Your task to perform on an android device: Open the phone app and click the voicemail tab. Image 0: 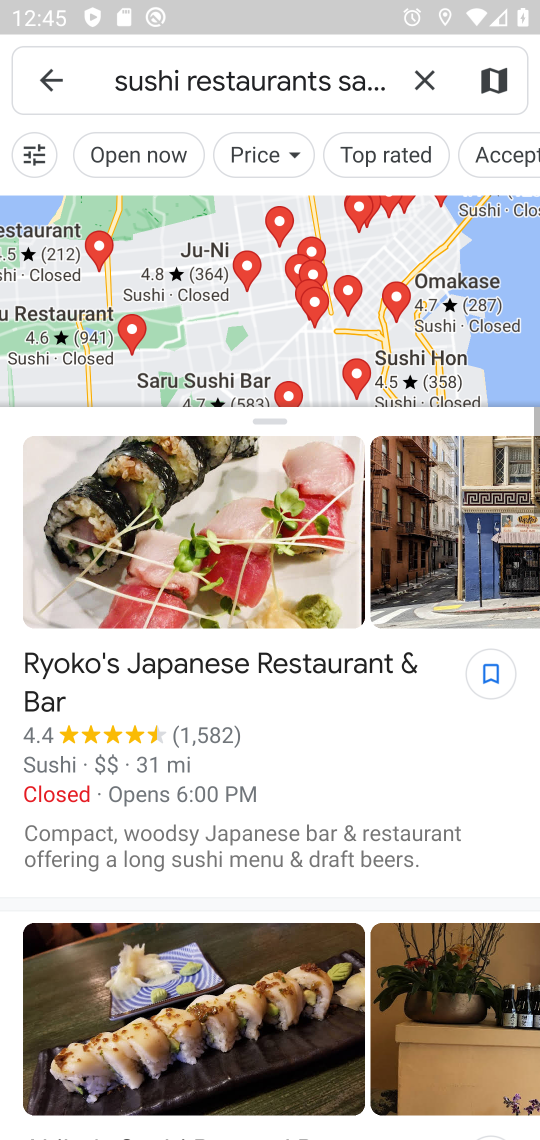
Step 0: drag from (252, 997) to (298, 164)
Your task to perform on an android device: Open the phone app and click the voicemail tab. Image 1: 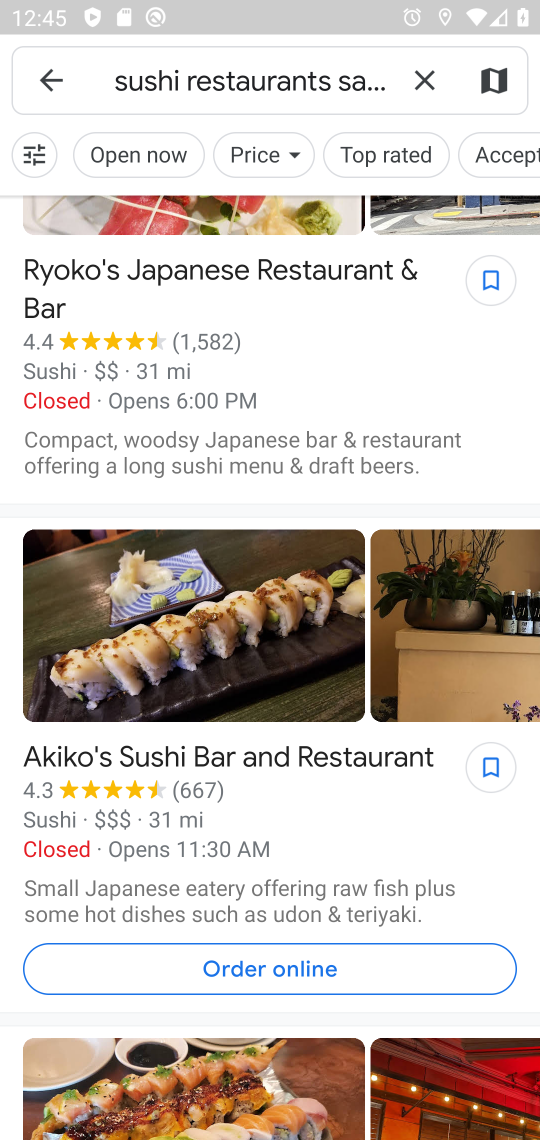
Step 1: drag from (313, 634) to (343, 372)
Your task to perform on an android device: Open the phone app and click the voicemail tab. Image 2: 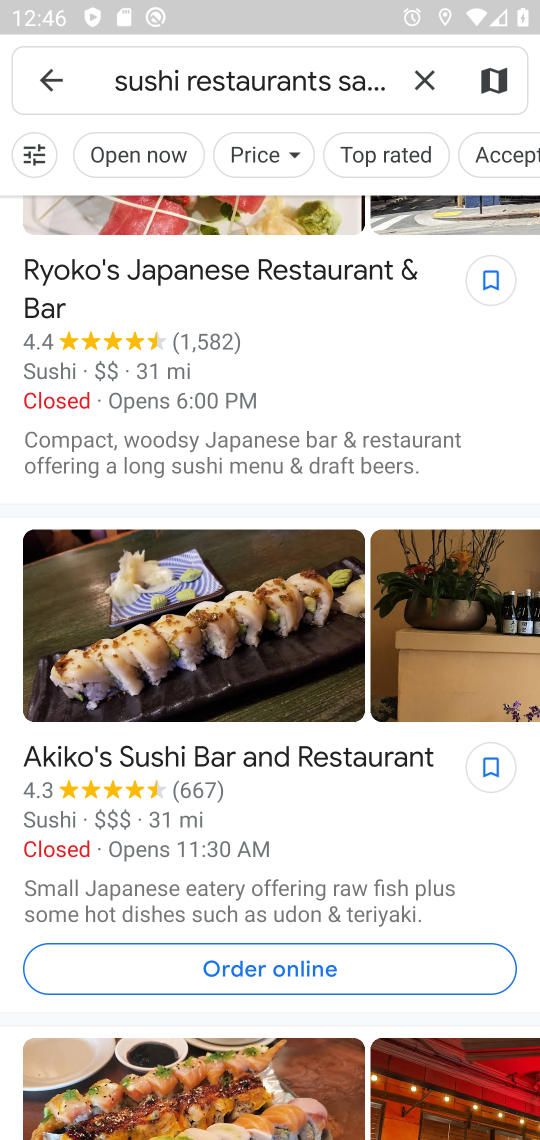
Step 2: drag from (290, 469) to (310, 328)
Your task to perform on an android device: Open the phone app and click the voicemail tab. Image 3: 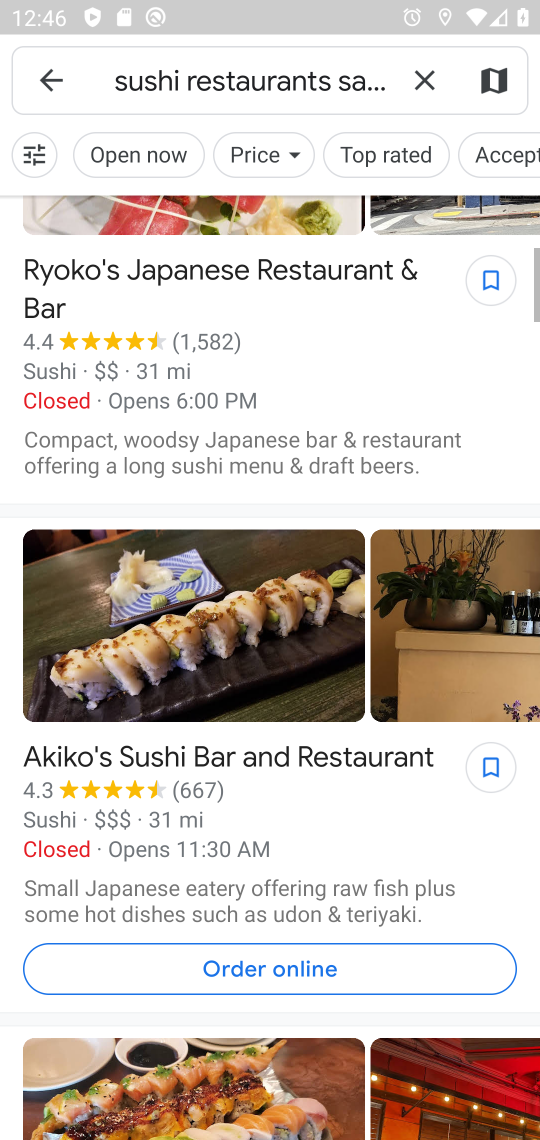
Step 3: press home button
Your task to perform on an android device: Open the phone app and click the voicemail tab. Image 4: 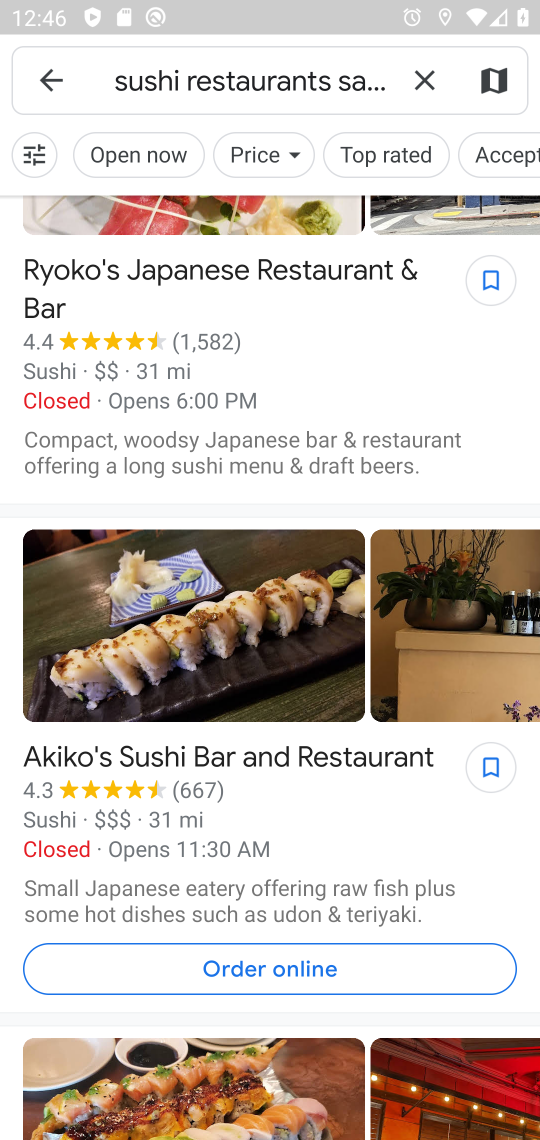
Step 4: click (406, 202)
Your task to perform on an android device: Open the phone app and click the voicemail tab. Image 5: 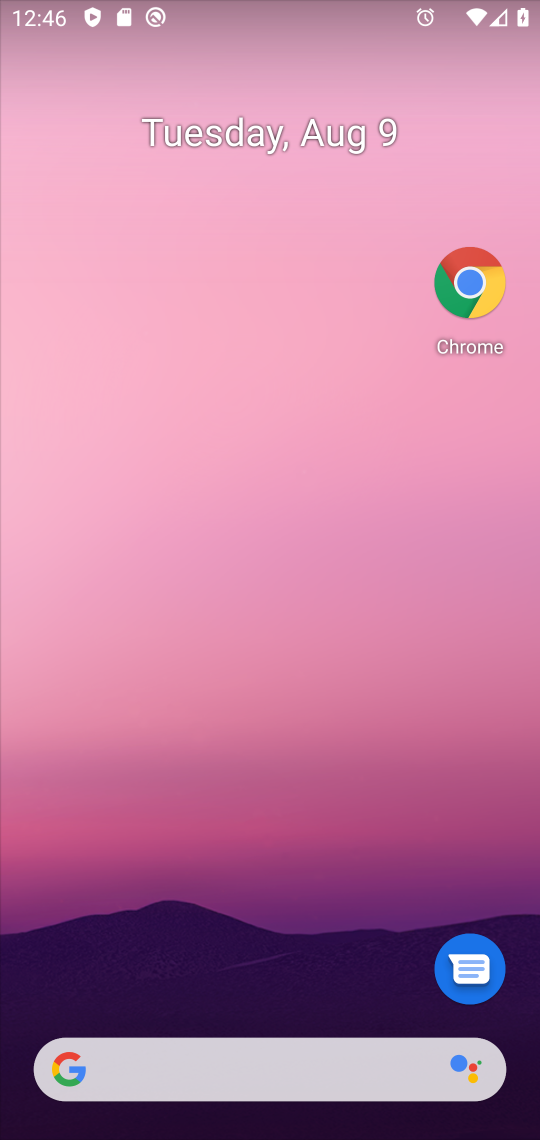
Step 5: drag from (286, 1015) to (374, 315)
Your task to perform on an android device: Open the phone app and click the voicemail tab. Image 6: 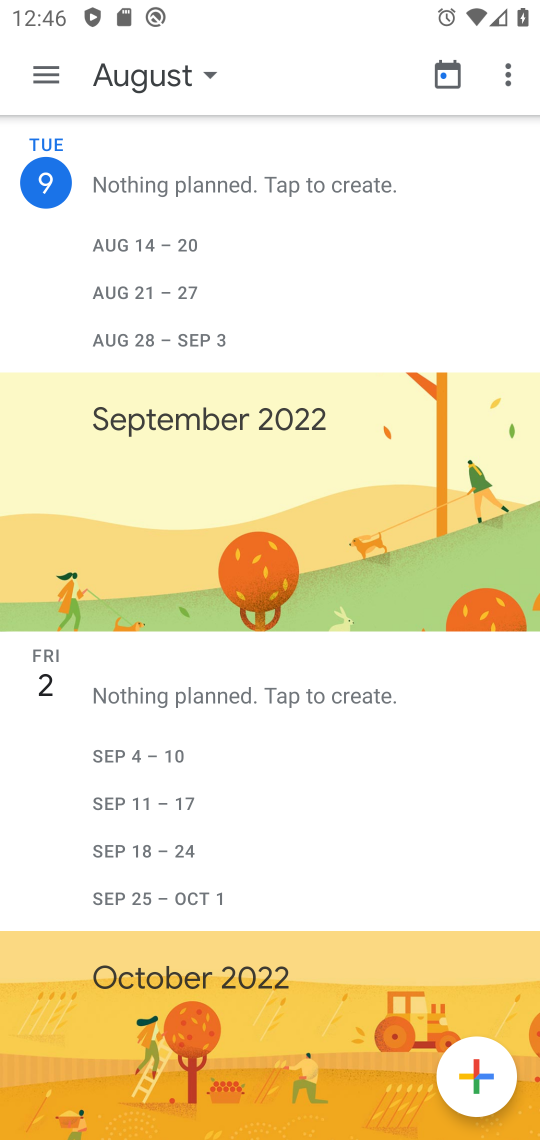
Step 6: press home button
Your task to perform on an android device: Open the phone app and click the voicemail tab. Image 7: 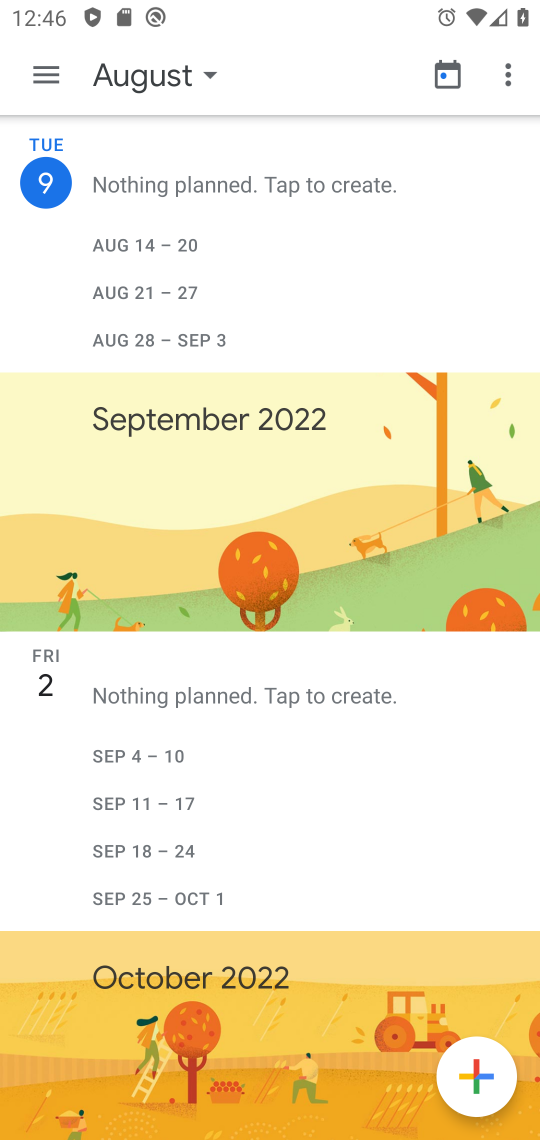
Step 7: drag from (288, 875) to (477, 55)
Your task to perform on an android device: Open the phone app and click the voicemail tab. Image 8: 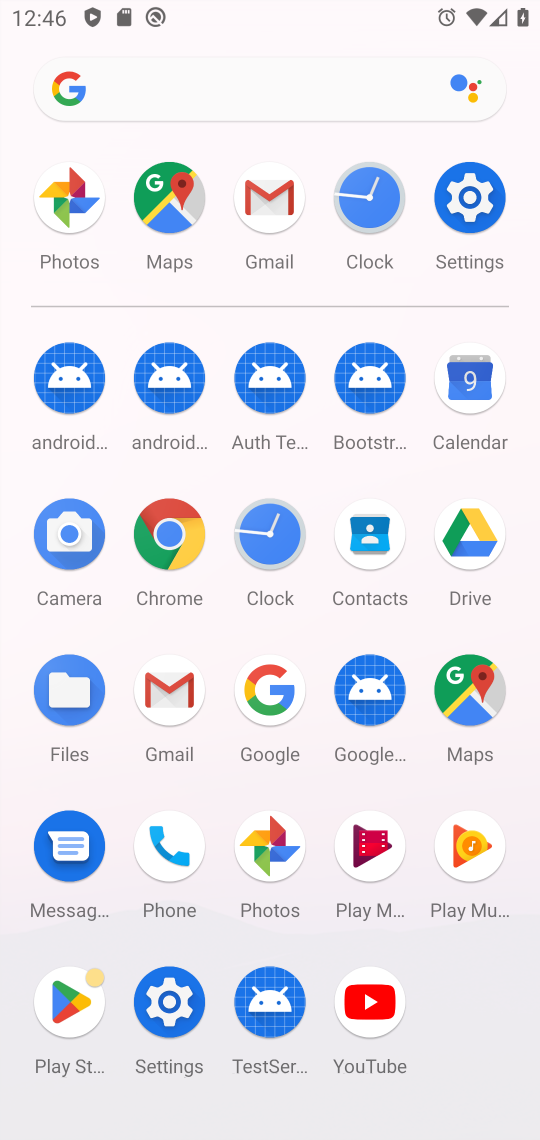
Step 8: drag from (307, 669) to (301, 67)
Your task to perform on an android device: Open the phone app and click the voicemail tab. Image 9: 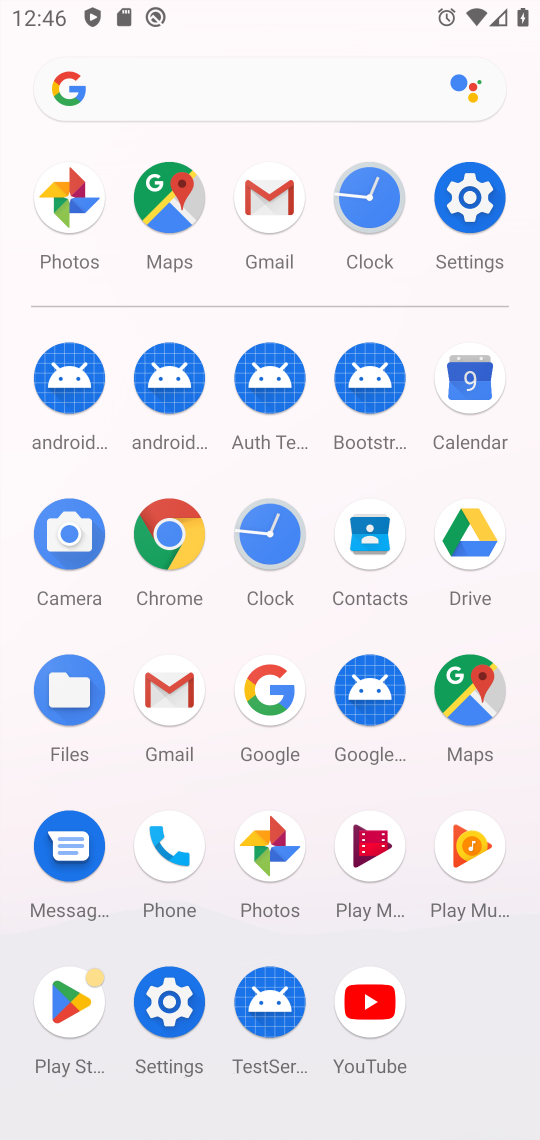
Step 9: click (160, 843)
Your task to perform on an android device: Open the phone app and click the voicemail tab. Image 10: 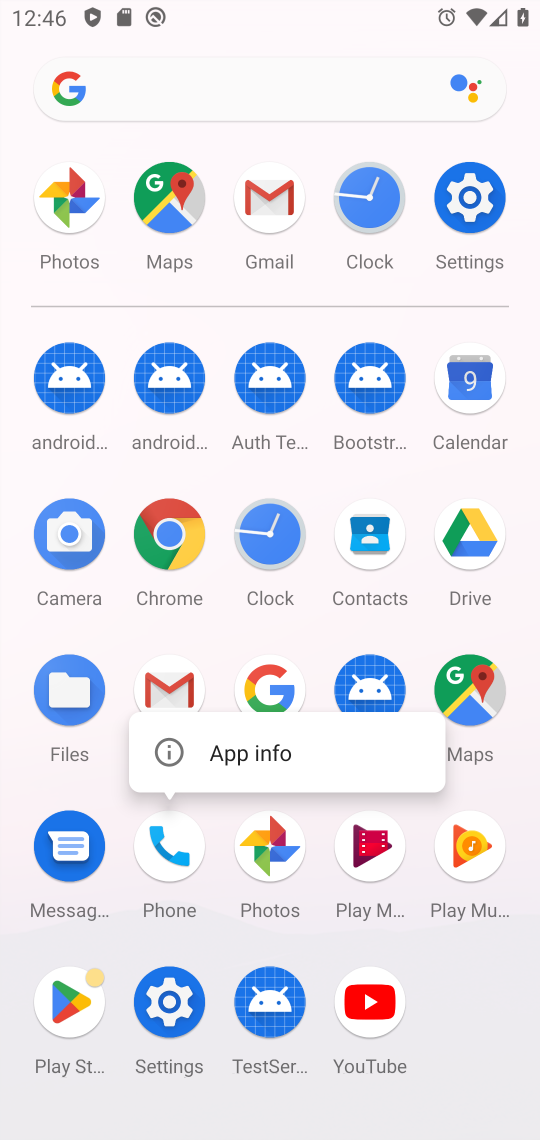
Step 10: click (204, 742)
Your task to perform on an android device: Open the phone app and click the voicemail tab. Image 11: 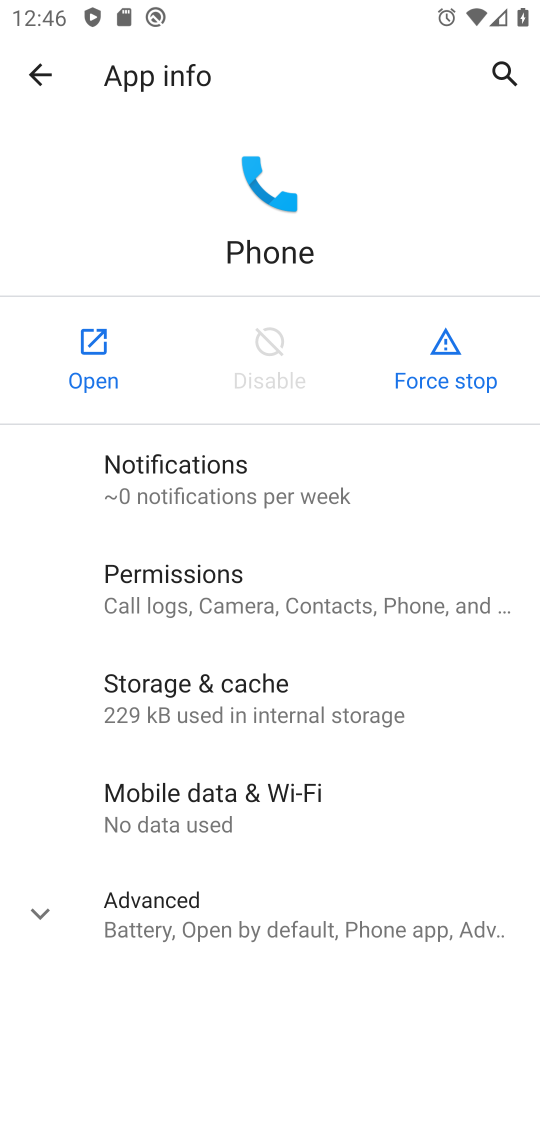
Step 11: click (113, 332)
Your task to perform on an android device: Open the phone app and click the voicemail tab. Image 12: 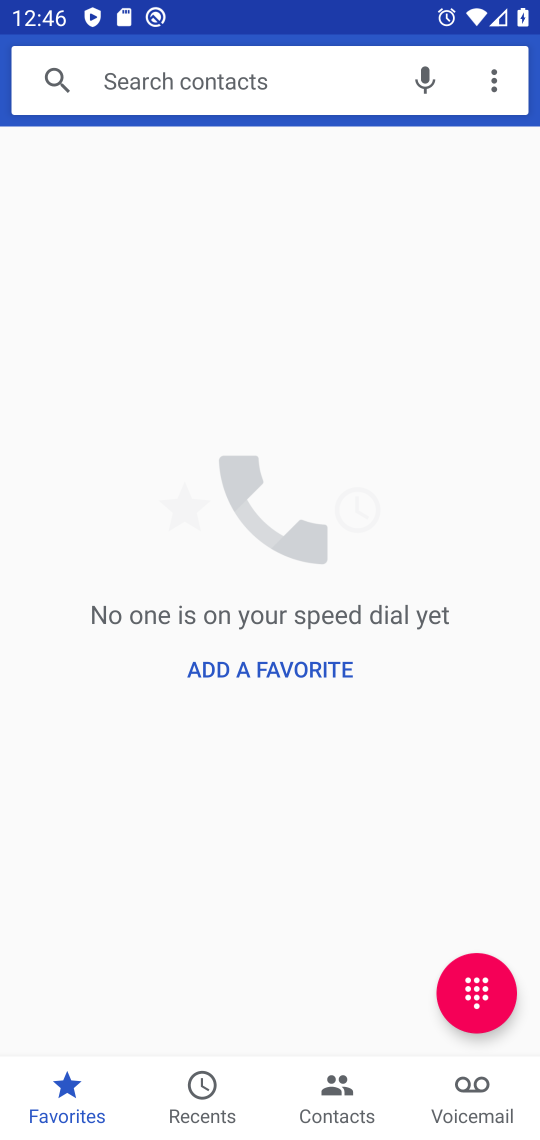
Step 12: click (447, 1091)
Your task to perform on an android device: Open the phone app and click the voicemail tab. Image 13: 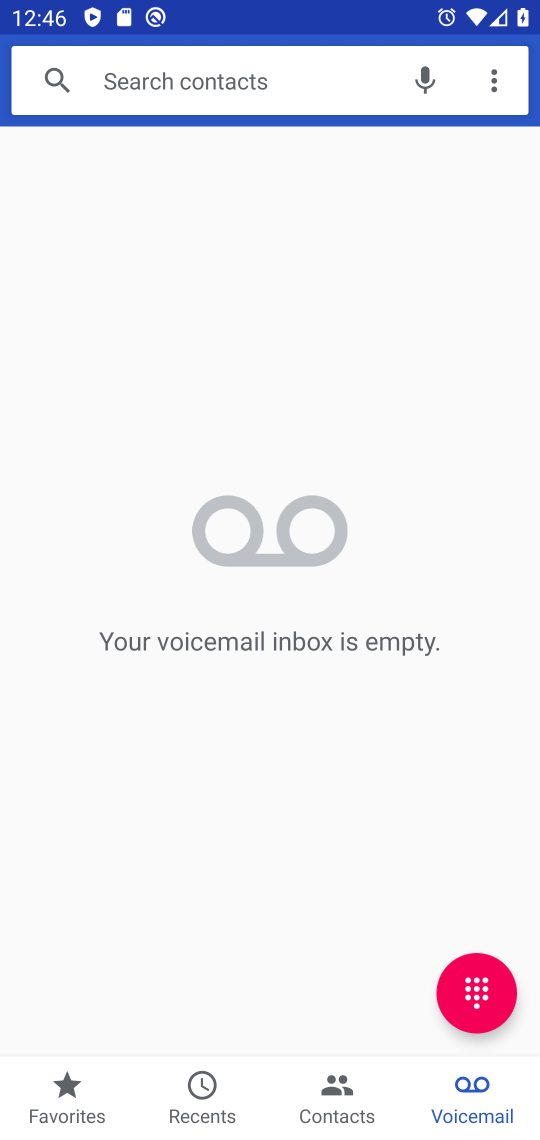
Step 13: task complete